Your task to perform on an android device: Clear all items from cart on bestbuy. Add macbook pro to the cart on bestbuy, then select checkout. Image 0: 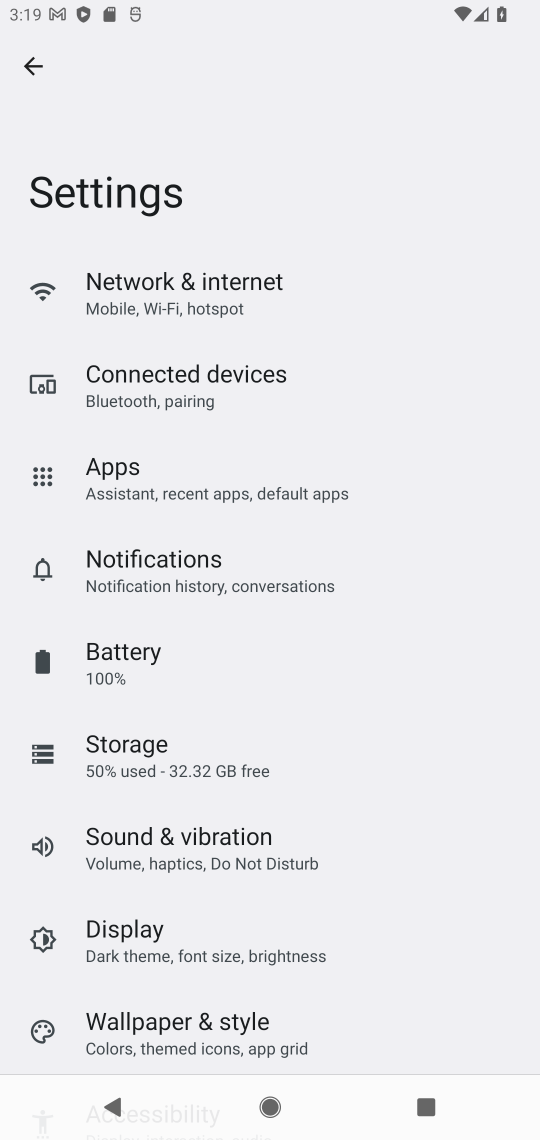
Step 0: press home button
Your task to perform on an android device: Clear all items from cart on bestbuy. Add macbook pro to the cart on bestbuy, then select checkout. Image 1: 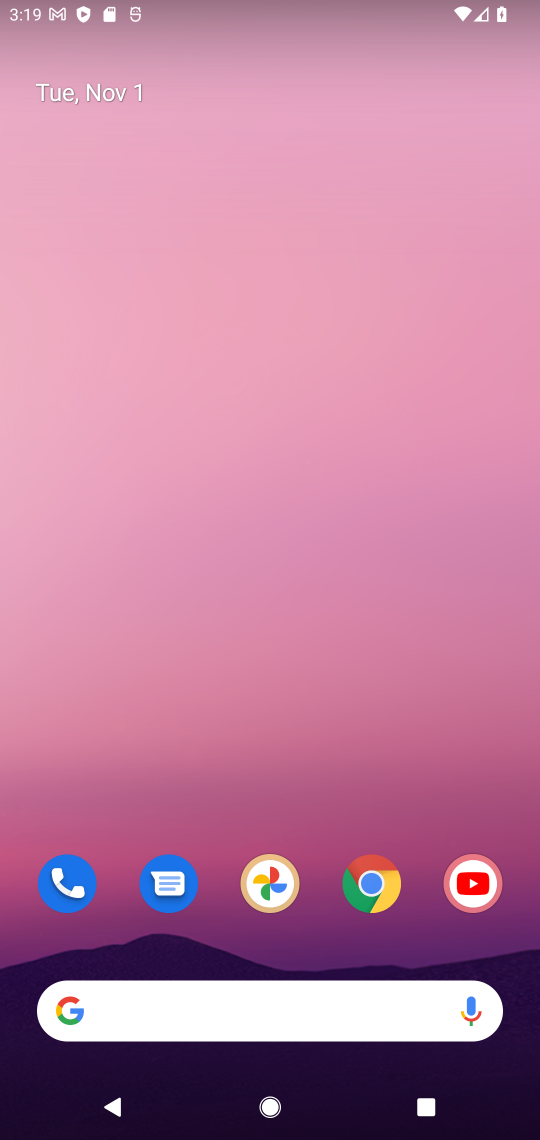
Step 1: click (374, 877)
Your task to perform on an android device: Clear all items from cart on bestbuy. Add macbook pro to the cart on bestbuy, then select checkout. Image 2: 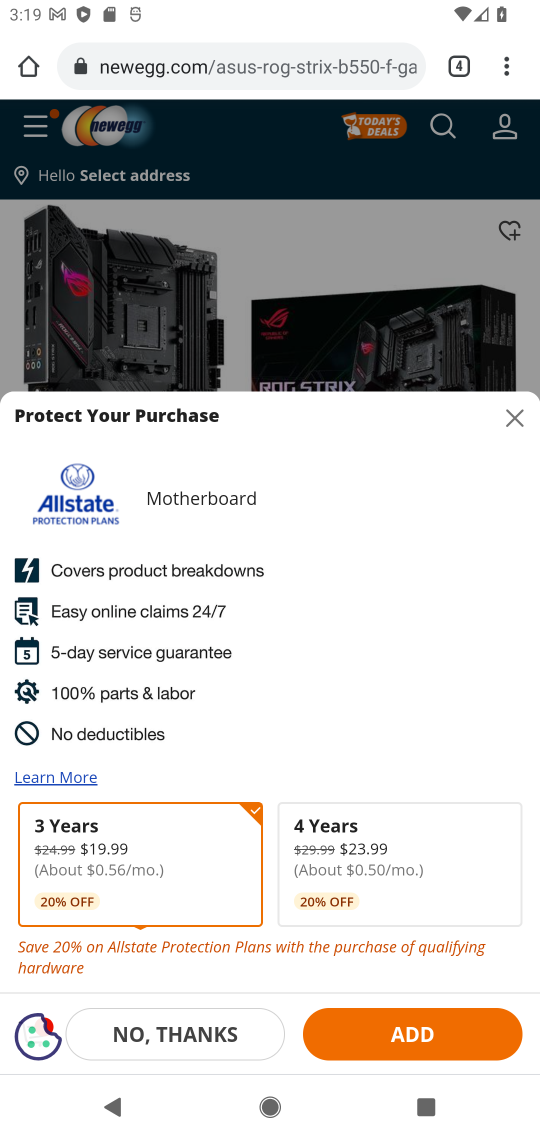
Step 2: click (454, 74)
Your task to perform on an android device: Clear all items from cart on bestbuy. Add macbook pro to the cart on bestbuy, then select checkout. Image 3: 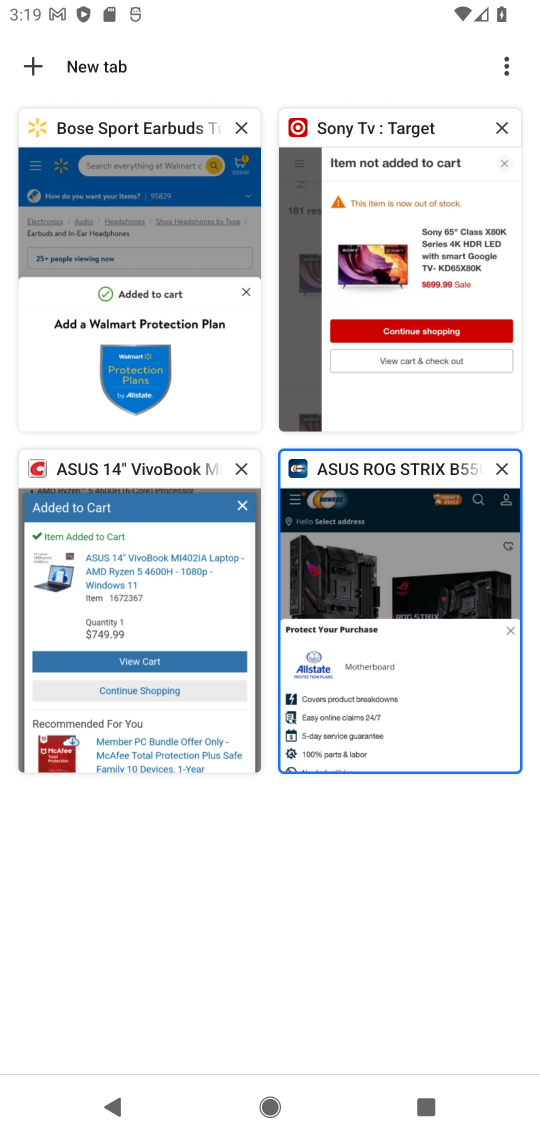
Step 3: click (31, 65)
Your task to perform on an android device: Clear all items from cart on bestbuy. Add macbook pro to the cart on bestbuy, then select checkout. Image 4: 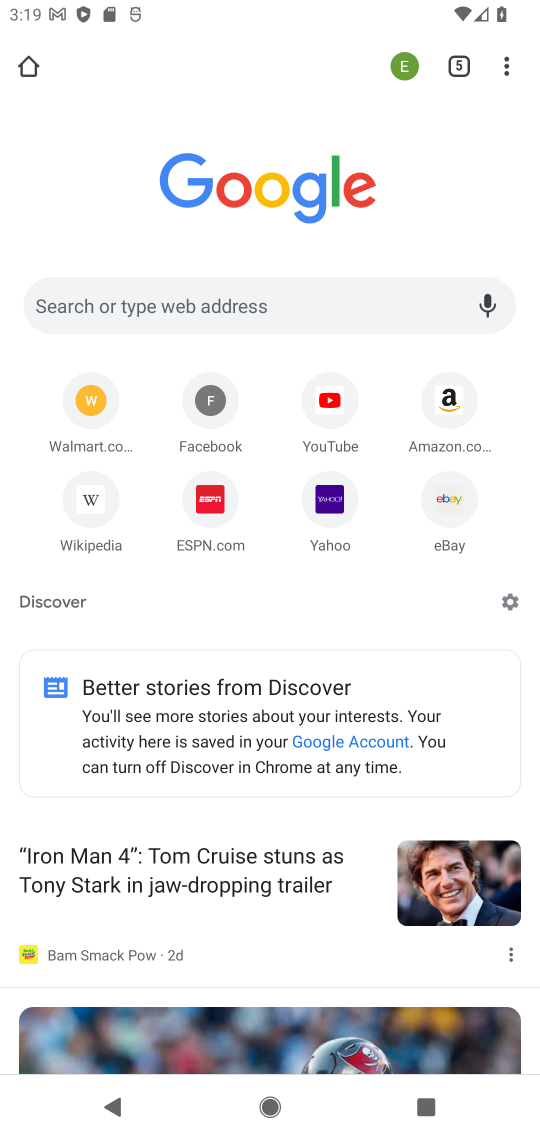
Step 4: type "bestbuy"
Your task to perform on an android device: Clear all items from cart on bestbuy. Add macbook pro to the cart on bestbuy, then select checkout. Image 5: 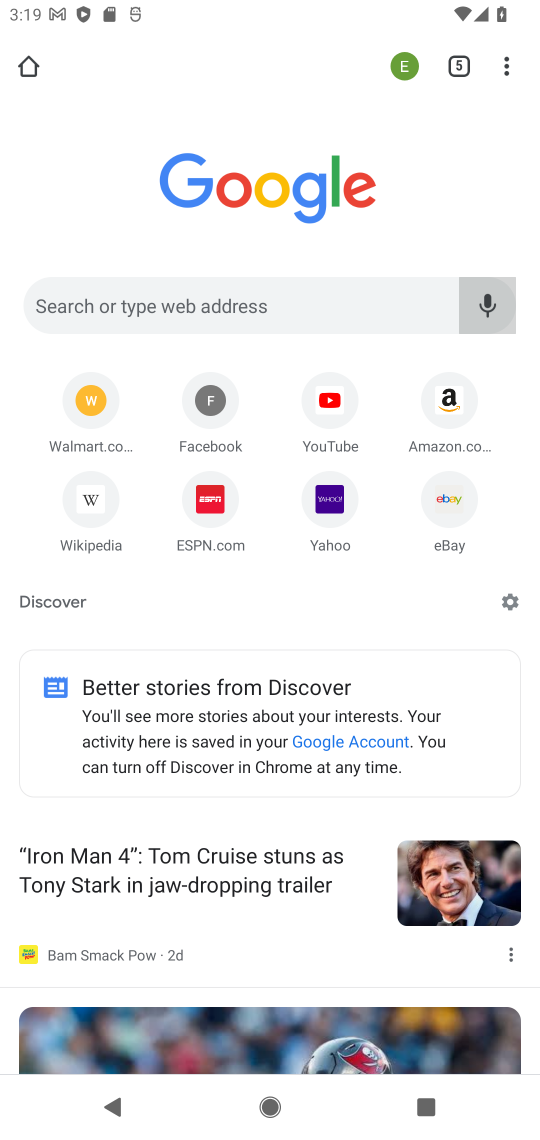
Step 5: click (248, 292)
Your task to perform on an android device: Clear all items from cart on bestbuy. Add macbook pro to the cart on bestbuy, then select checkout. Image 6: 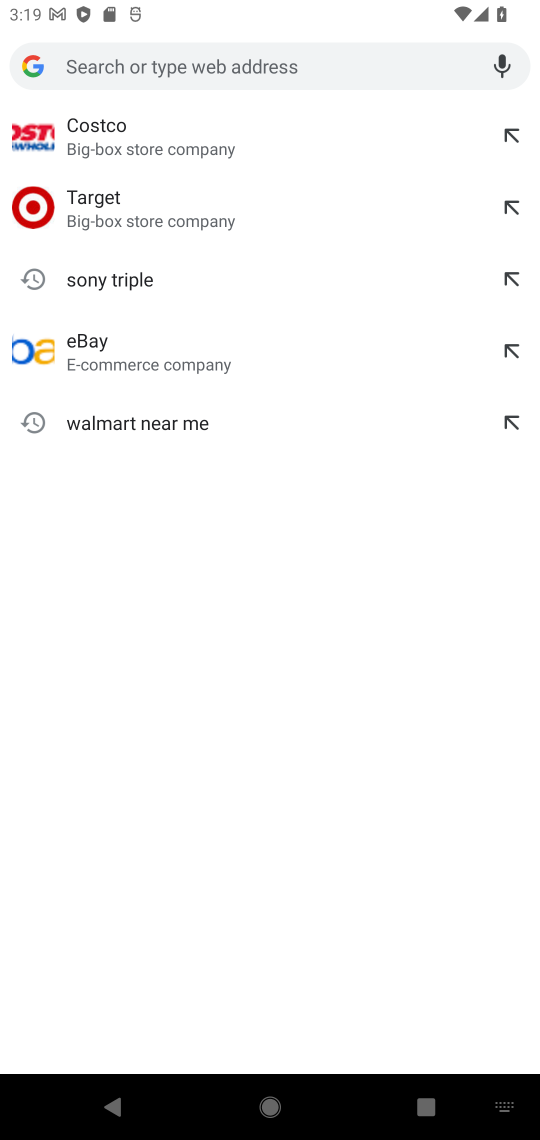
Step 6: type "bestbuy"
Your task to perform on an android device: Clear all items from cart on bestbuy. Add macbook pro to the cart on bestbuy, then select checkout. Image 7: 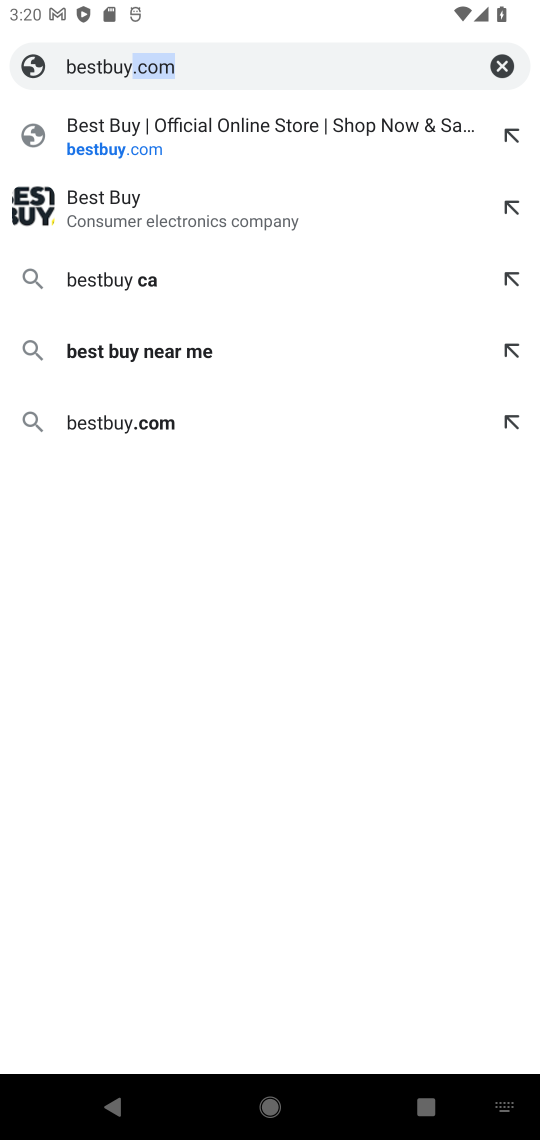
Step 7: click (85, 152)
Your task to perform on an android device: Clear all items from cart on bestbuy. Add macbook pro to the cart on bestbuy, then select checkout. Image 8: 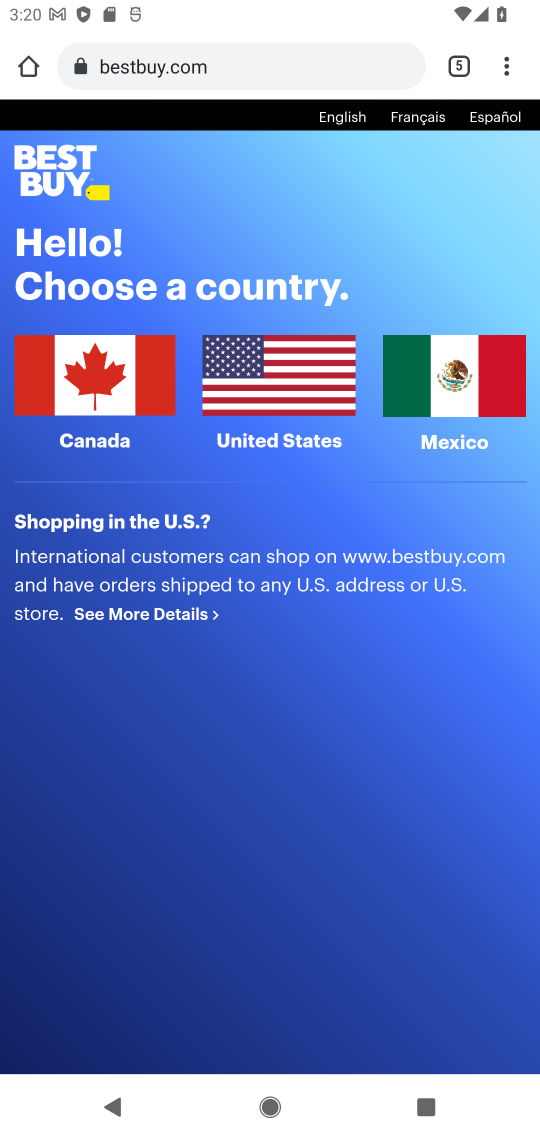
Step 8: click (284, 387)
Your task to perform on an android device: Clear all items from cart on bestbuy. Add macbook pro to the cart on bestbuy, then select checkout. Image 9: 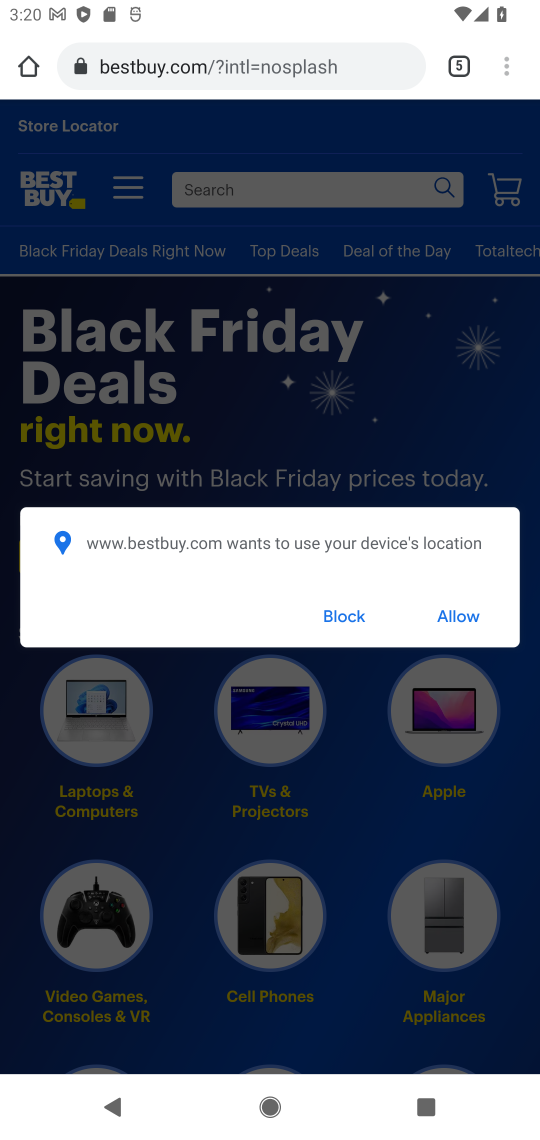
Step 9: click (349, 619)
Your task to perform on an android device: Clear all items from cart on bestbuy. Add macbook pro to the cart on bestbuy, then select checkout. Image 10: 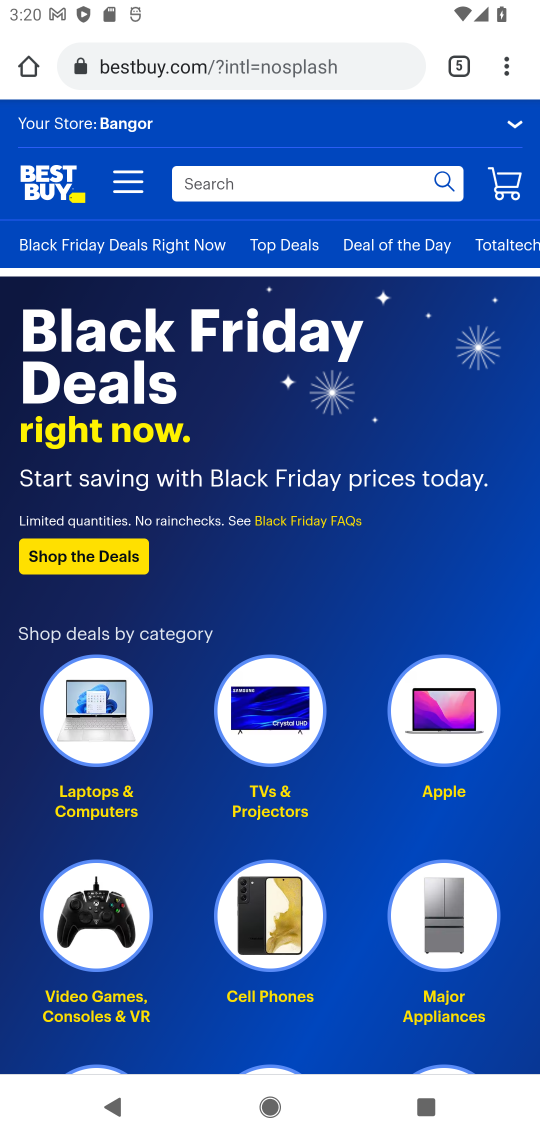
Step 10: click (289, 182)
Your task to perform on an android device: Clear all items from cart on bestbuy. Add macbook pro to the cart on bestbuy, then select checkout. Image 11: 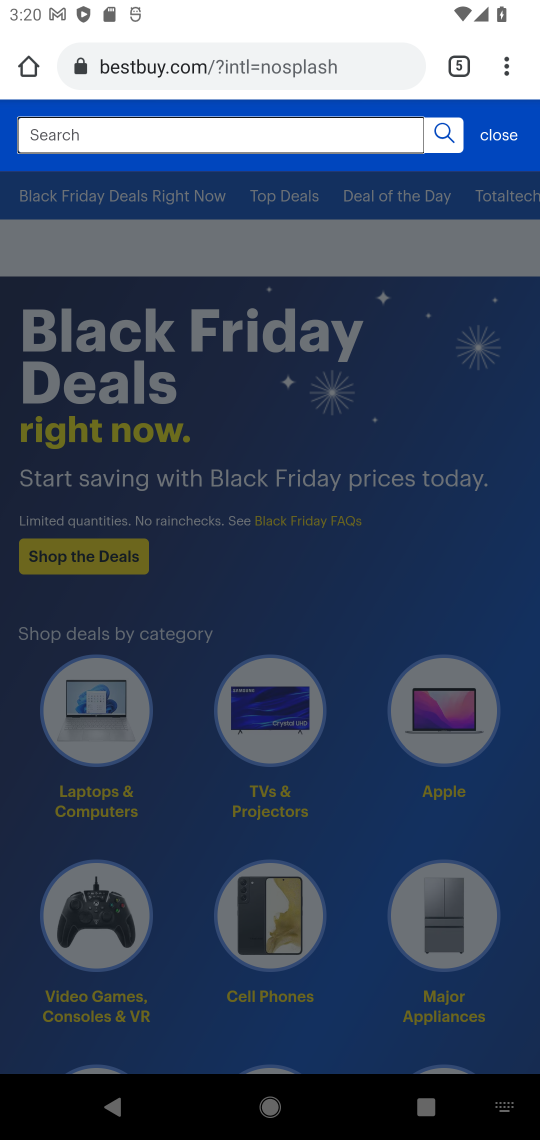
Step 11: type "macbook pro"
Your task to perform on an android device: Clear all items from cart on bestbuy. Add macbook pro to the cart on bestbuy, then select checkout. Image 12: 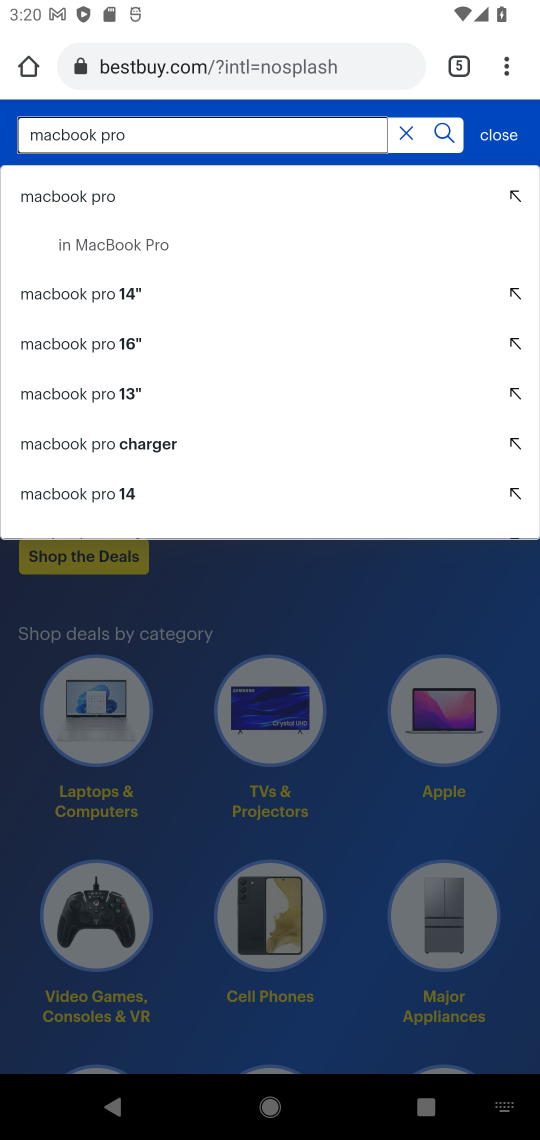
Step 12: click (87, 195)
Your task to perform on an android device: Clear all items from cart on bestbuy. Add macbook pro to the cart on bestbuy, then select checkout. Image 13: 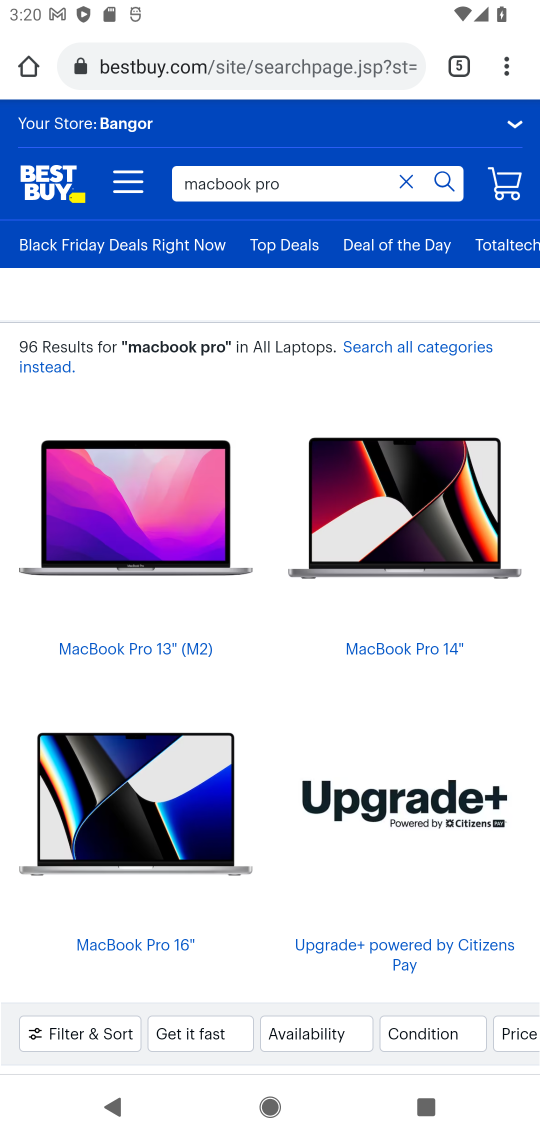
Step 13: click (124, 642)
Your task to perform on an android device: Clear all items from cart on bestbuy. Add macbook pro to the cart on bestbuy, then select checkout. Image 14: 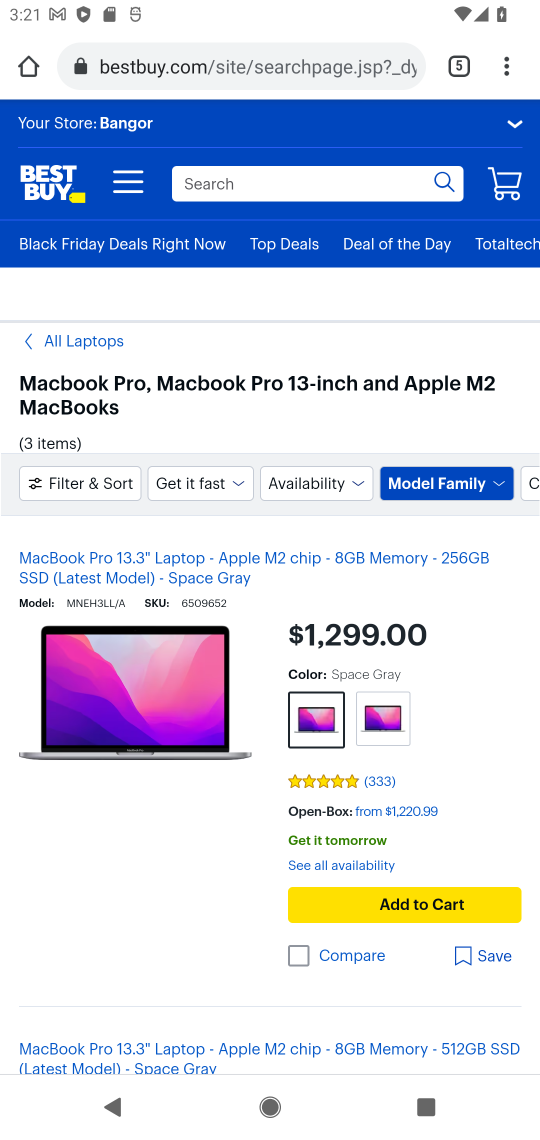
Step 14: click (421, 902)
Your task to perform on an android device: Clear all items from cart on bestbuy. Add macbook pro to the cart on bestbuy, then select checkout. Image 15: 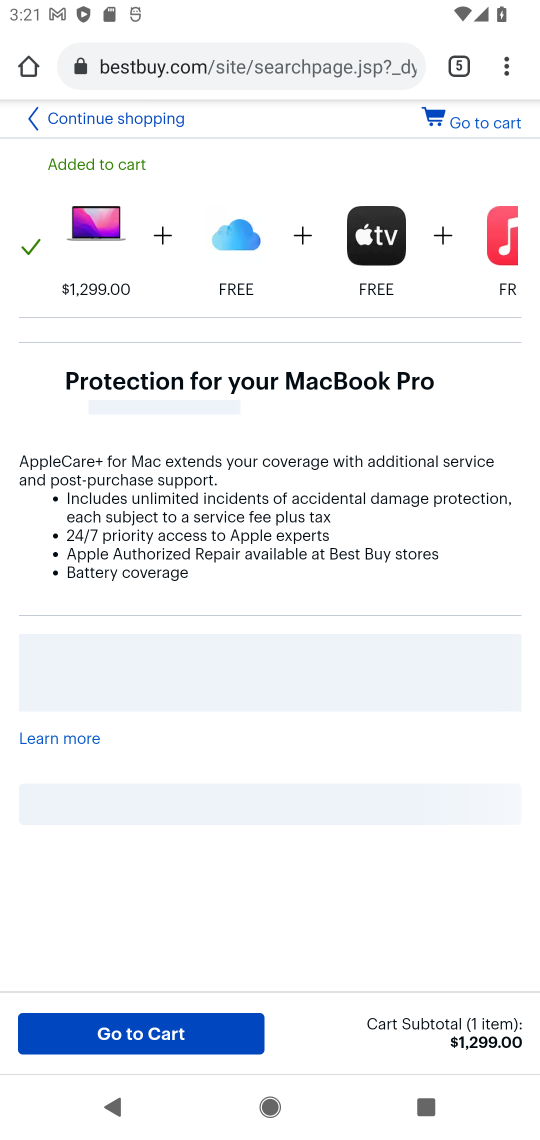
Step 15: task complete